Your task to perform on an android device: see creations saved in the google photos Image 0: 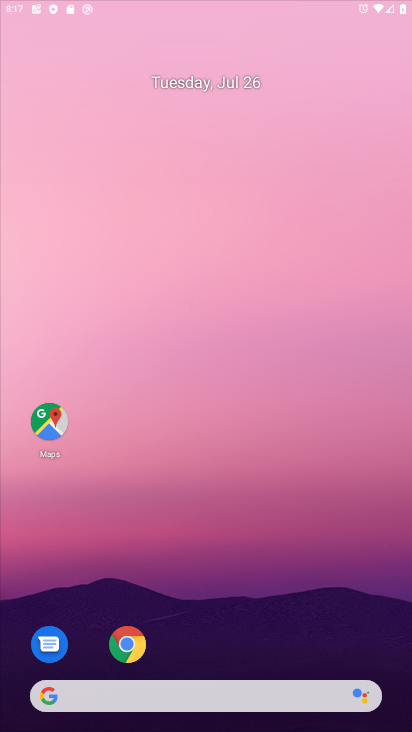
Step 0: click (173, 533)
Your task to perform on an android device: see creations saved in the google photos Image 1: 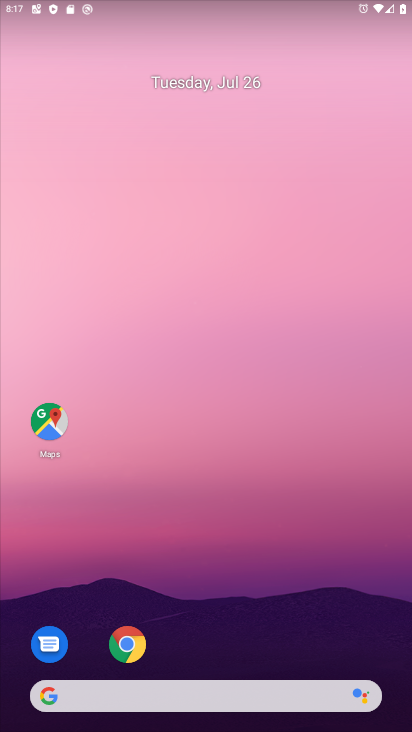
Step 1: drag from (242, 665) to (250, 240)
Your task to perform on an android device: see creations saved in the google photos Image 2: 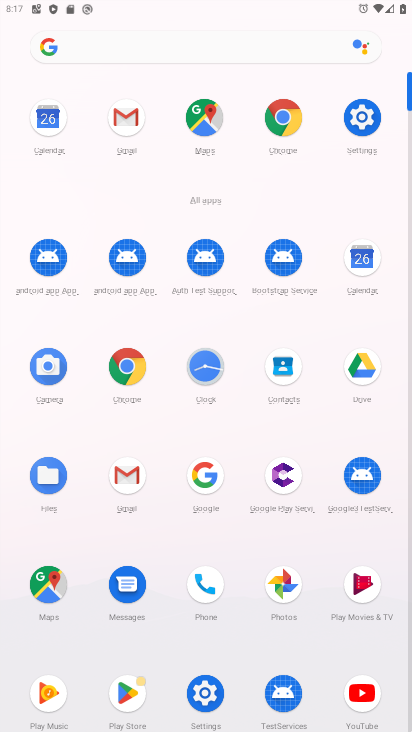
Step 2: click (286, 582)
Your task to perform on an android device: see creations saved in the google photos Image 3: 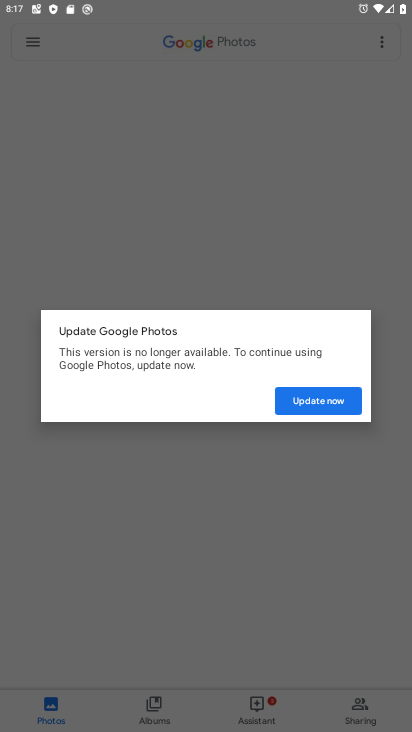
Step 3: click (312, 404)
Your task to perform on an android device: see creations saved in the google photos Image 4: 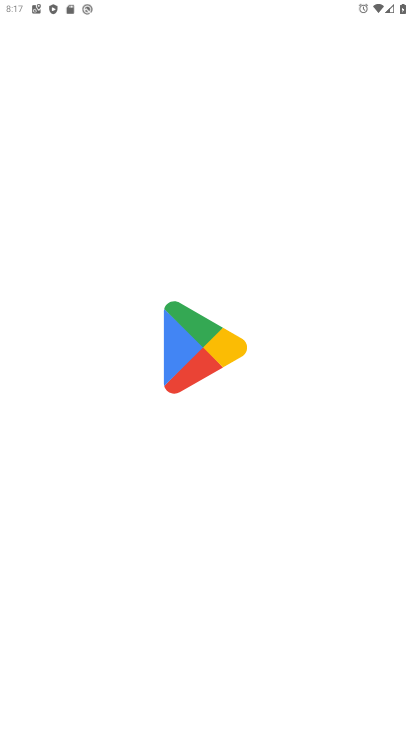
Step 4: press back button
Your task to perform on an android device: see creations saved in the google photos Image 5: 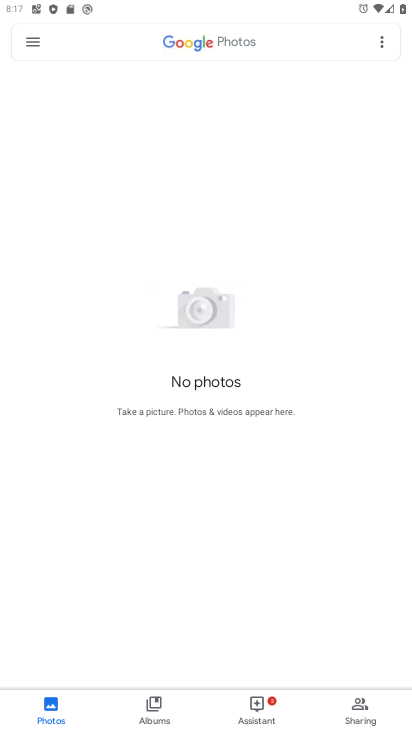
Step 5: click (133, 699)
Your task to perform on an android device: see creations saved in the google photos Image 6: 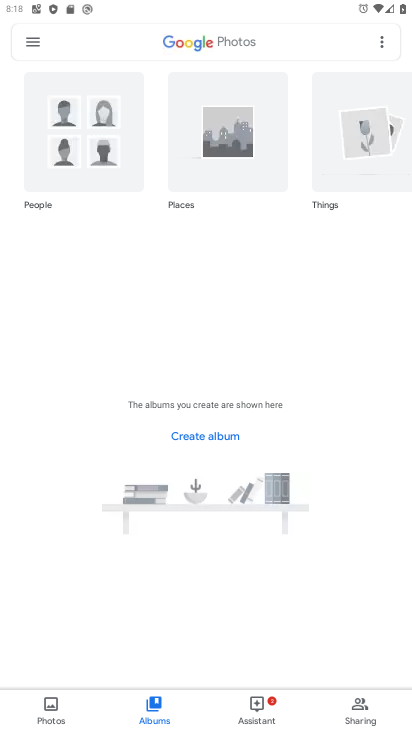
Step 6: task complete